Your task to perform on an android device: install app "Google Translate" Image 0: 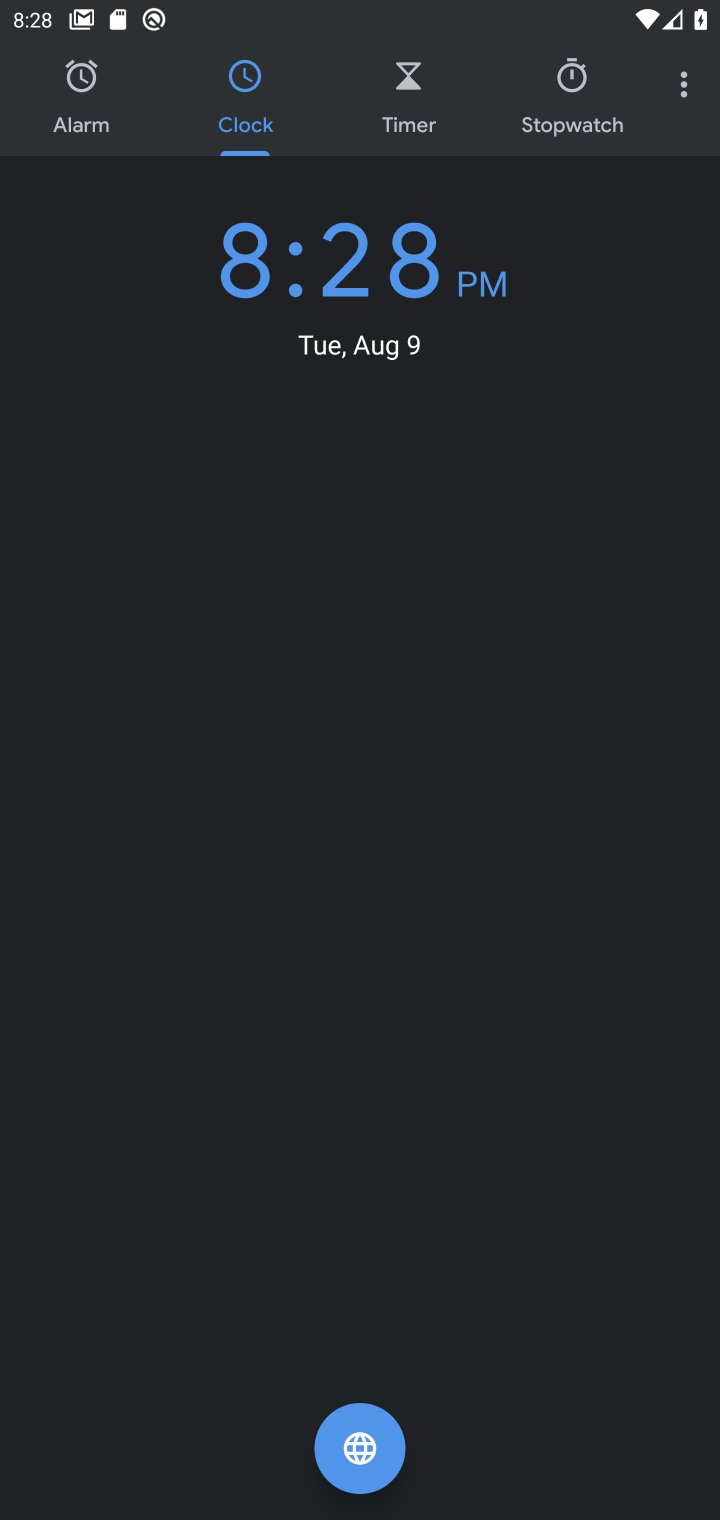
Step 0: press home button
Your task to perform on an android device: install app "Google Translate" Image 1: 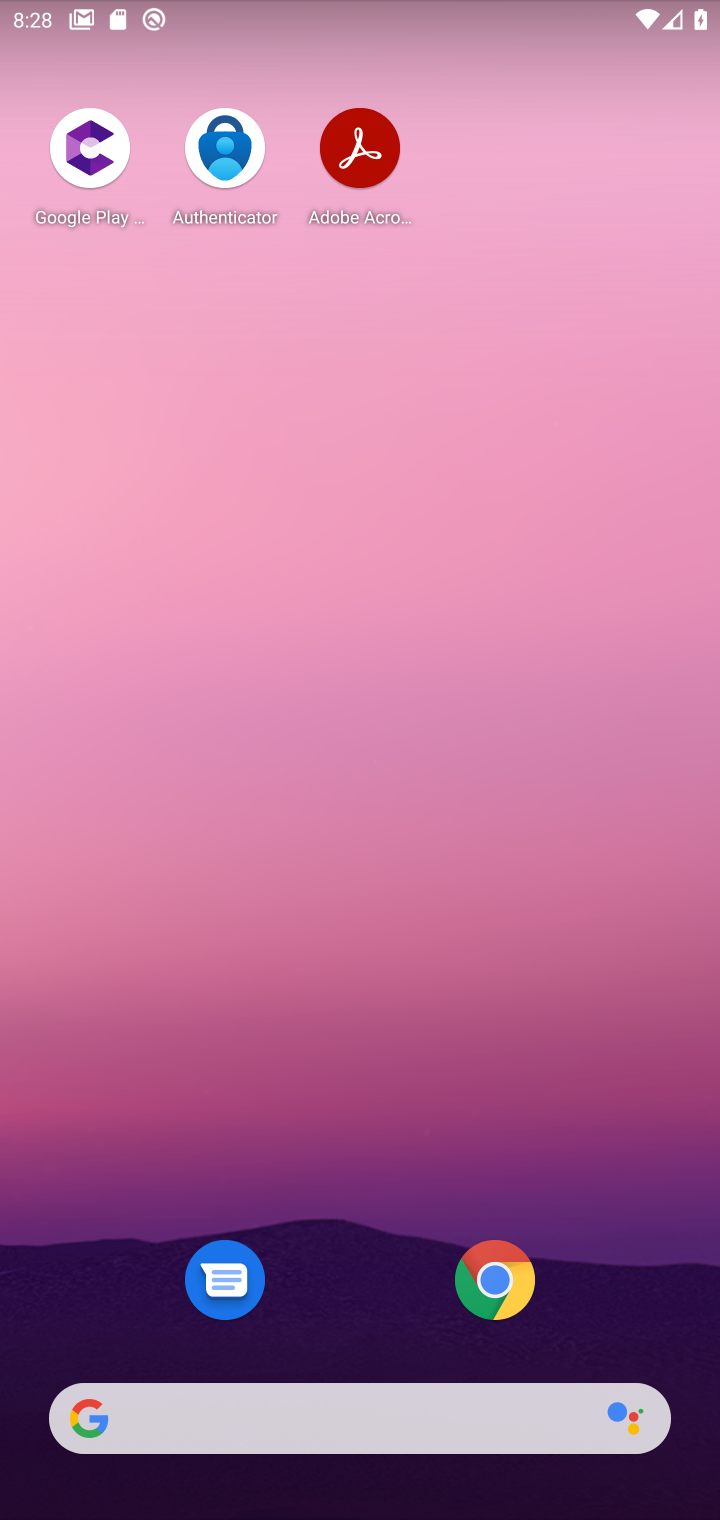
Step 1: drag from (384, 1401) to (308, 291)
Your task to perform on an android device: install app "Google Translate" Image 2: 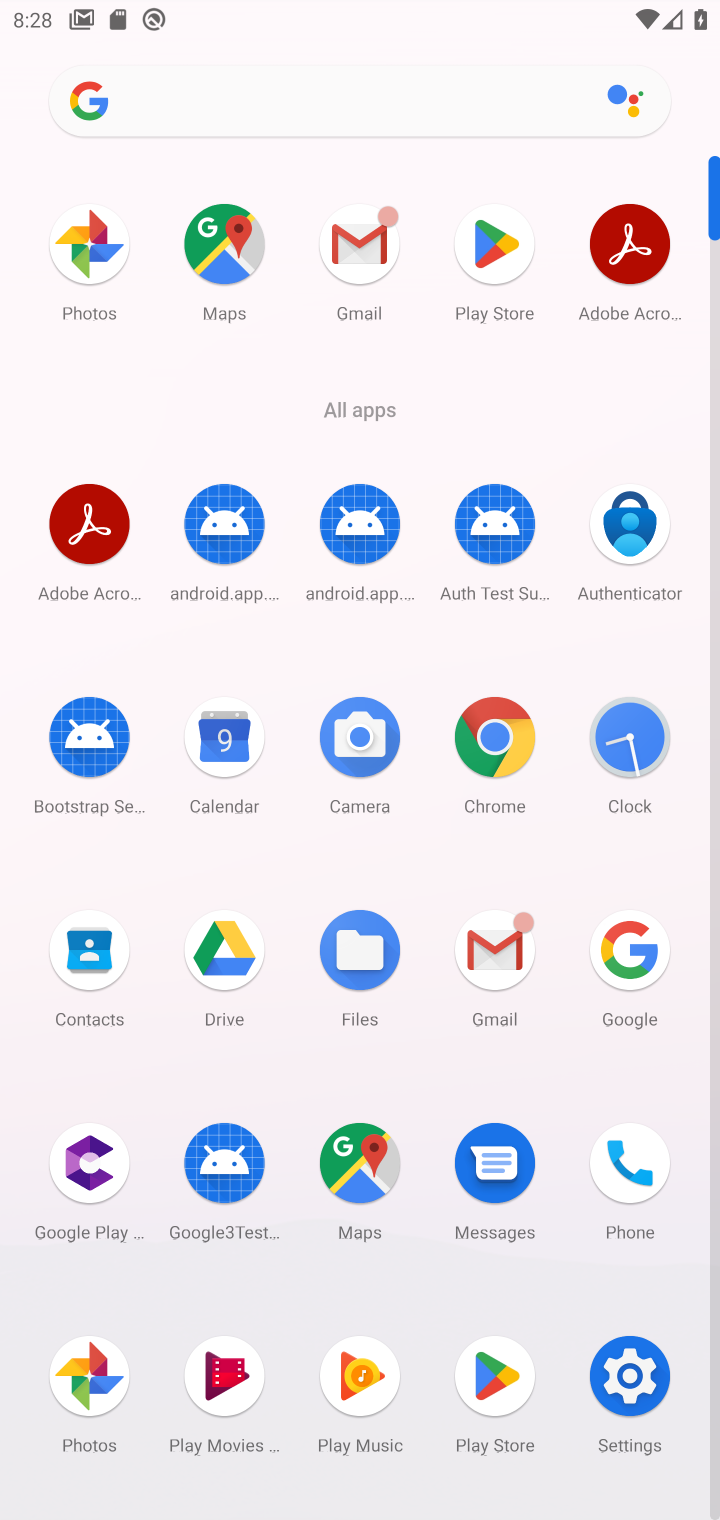
Step 2: click (503, 1382)
Your task to perform on an android device: install app "Google Translate" Image 3: 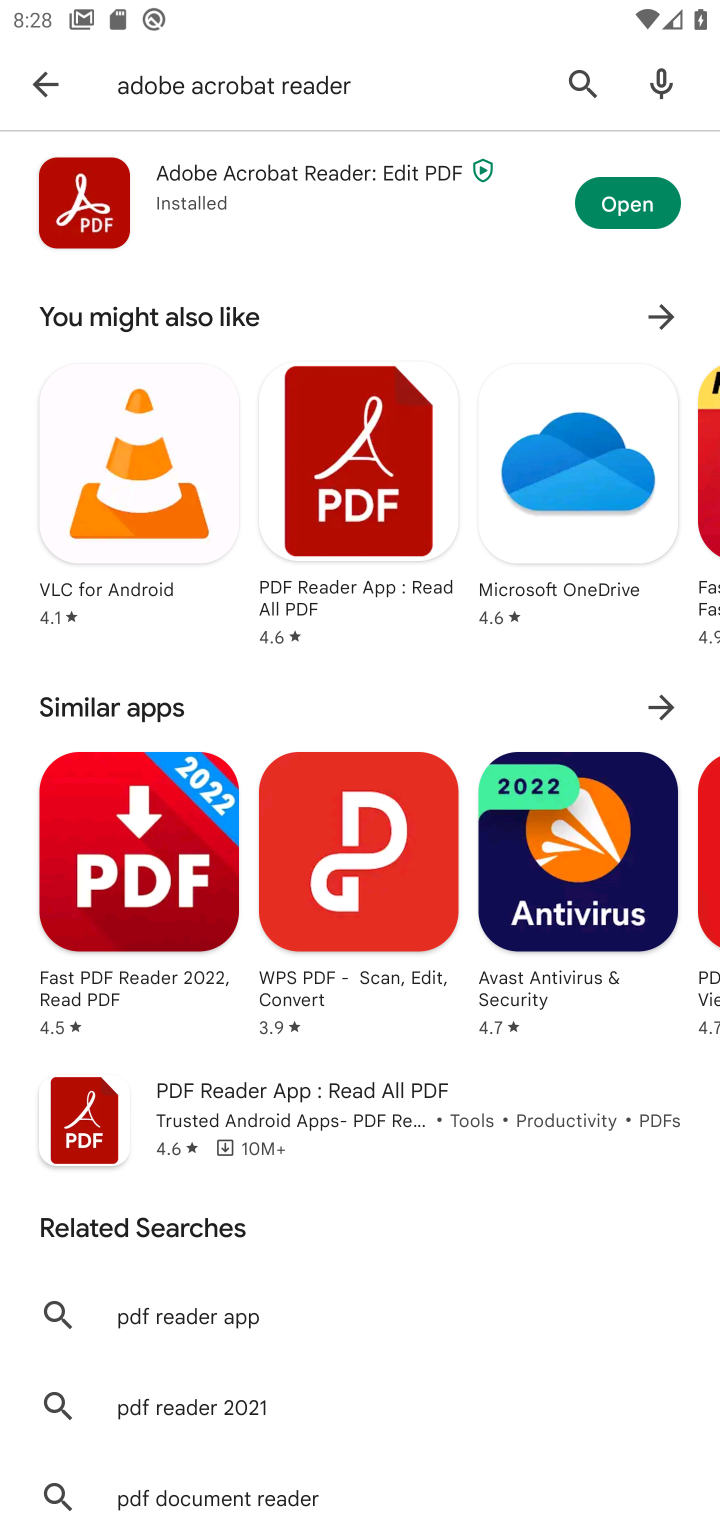
Step 3: click (570, 79)
Your task to perform on an android device: install app "Google Translate" Image 4: 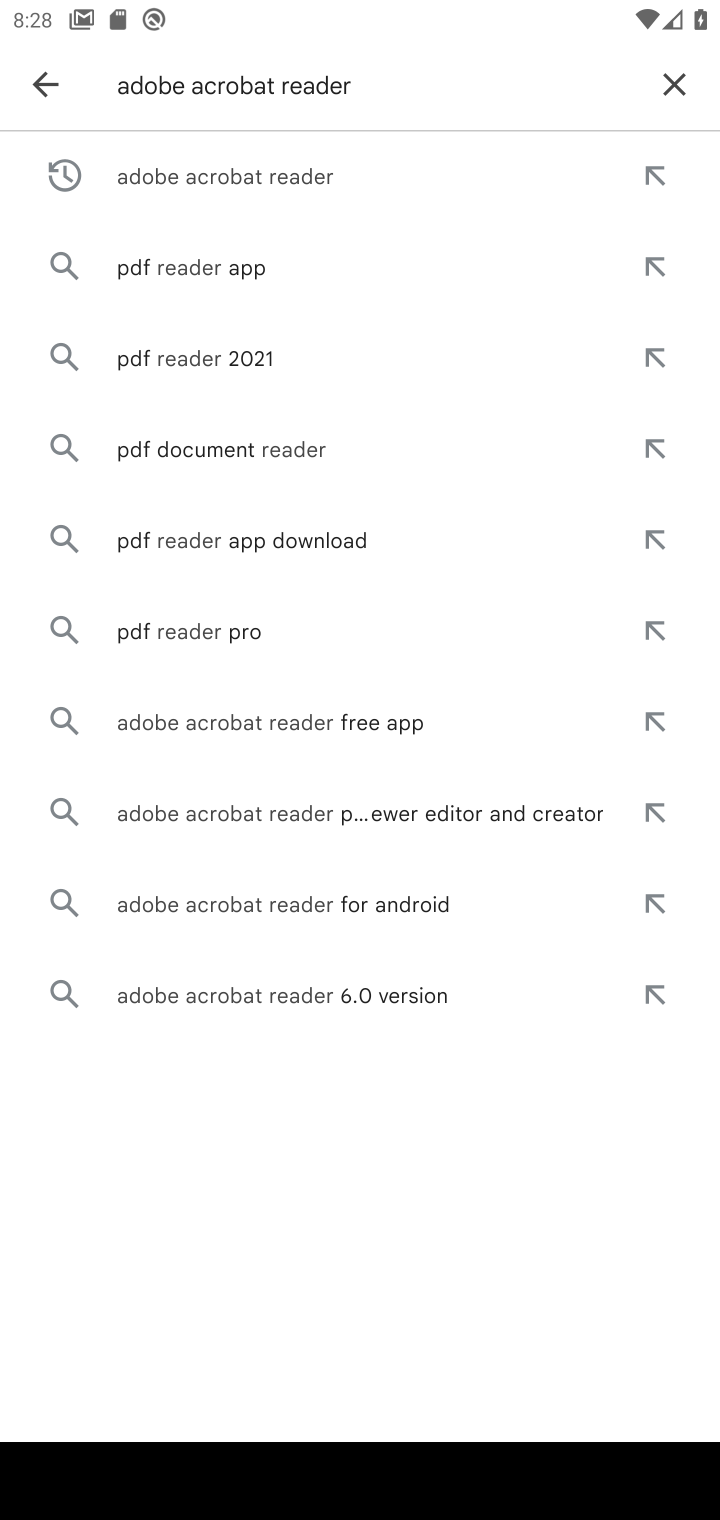
Step 4: click (674, 81)
Your task to perform on an android device: install app "Google Translate" Image 5: 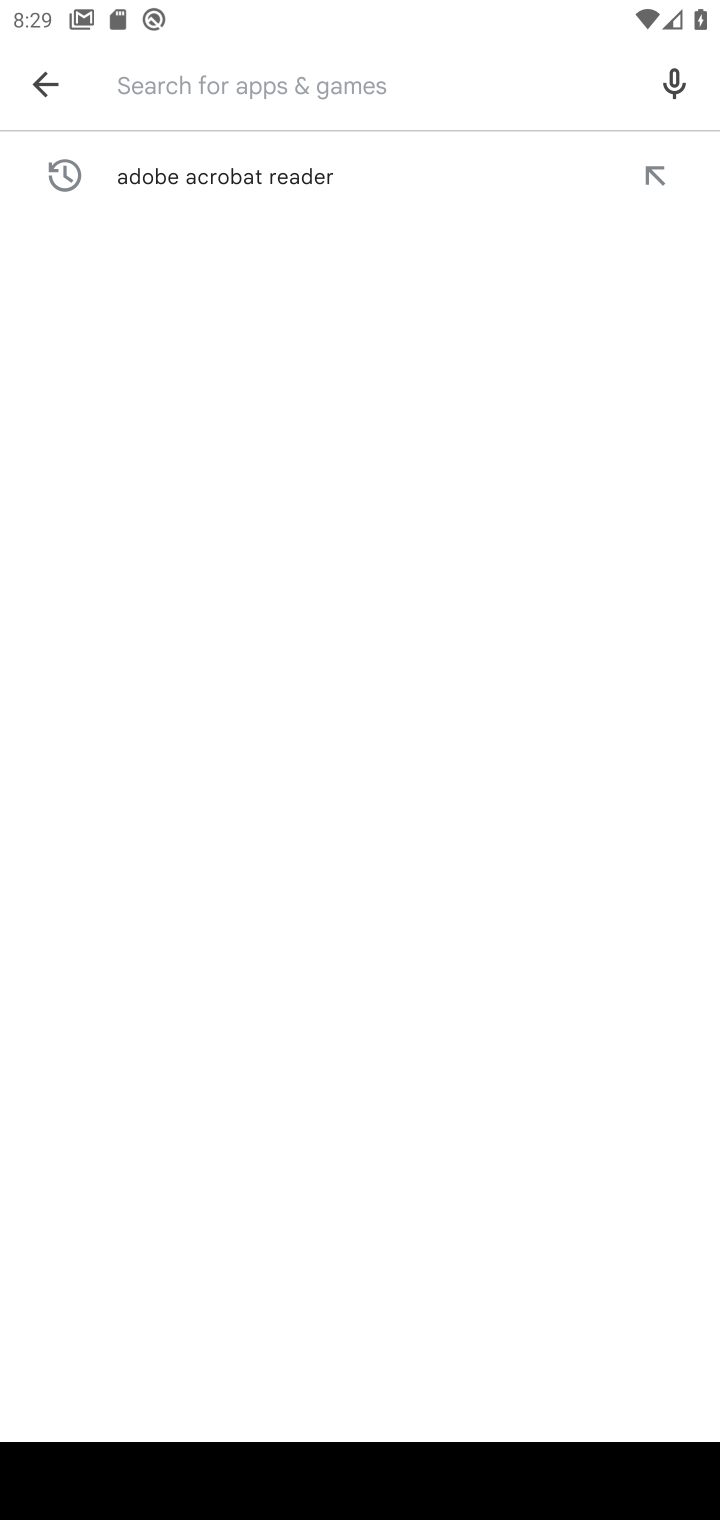
Step 5: type "google translate"
Your task to perform on an android device: install app "Google Translate" Image 6: 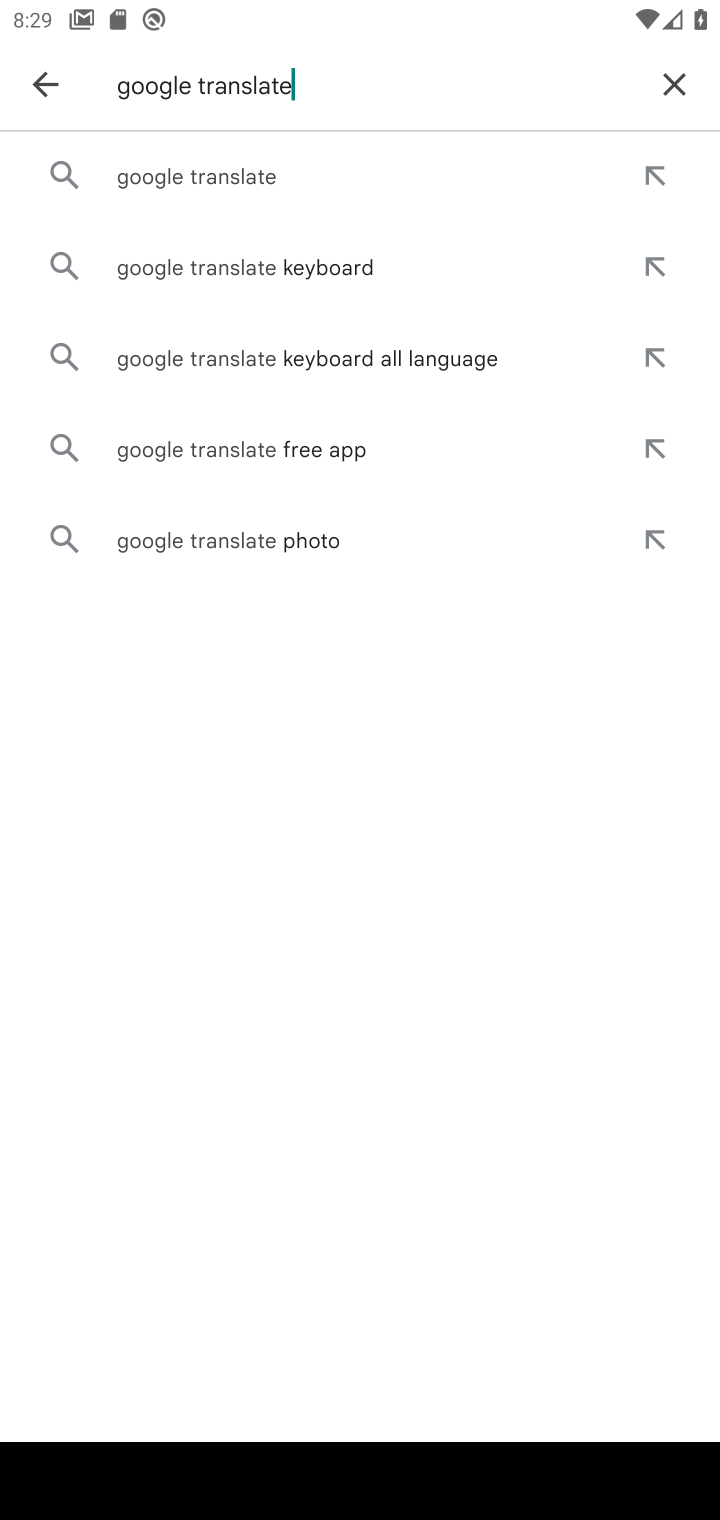
Step 6: click (199, 177)
Your task to perform on an android device: install app "Google Translate" Image 7: 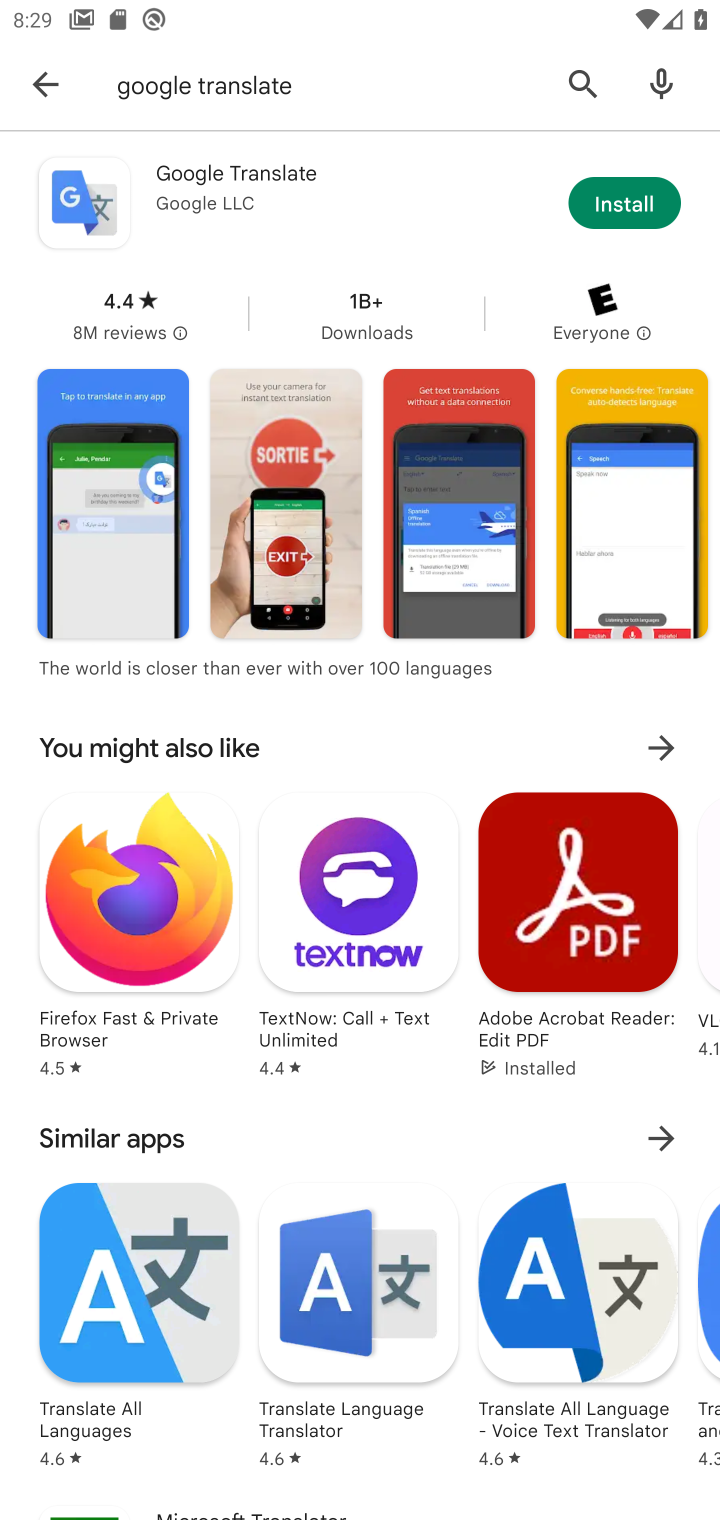
Step 7: click (650, 214)
Your task to perform on an android device: install app "Google Translate" Image 8: 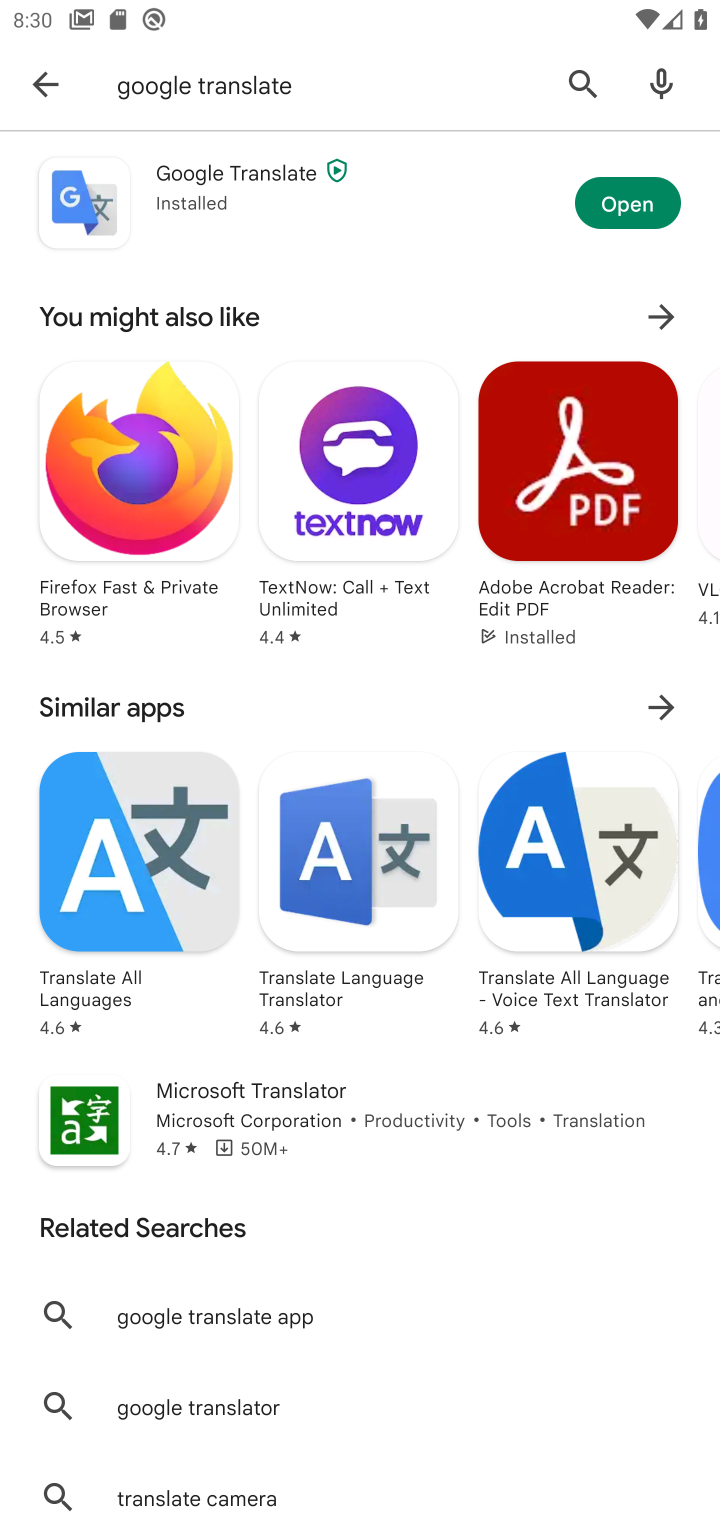
Step 8: click (642, 213)
Your task to perform on an android device: install app "Google Translate" Image 9: 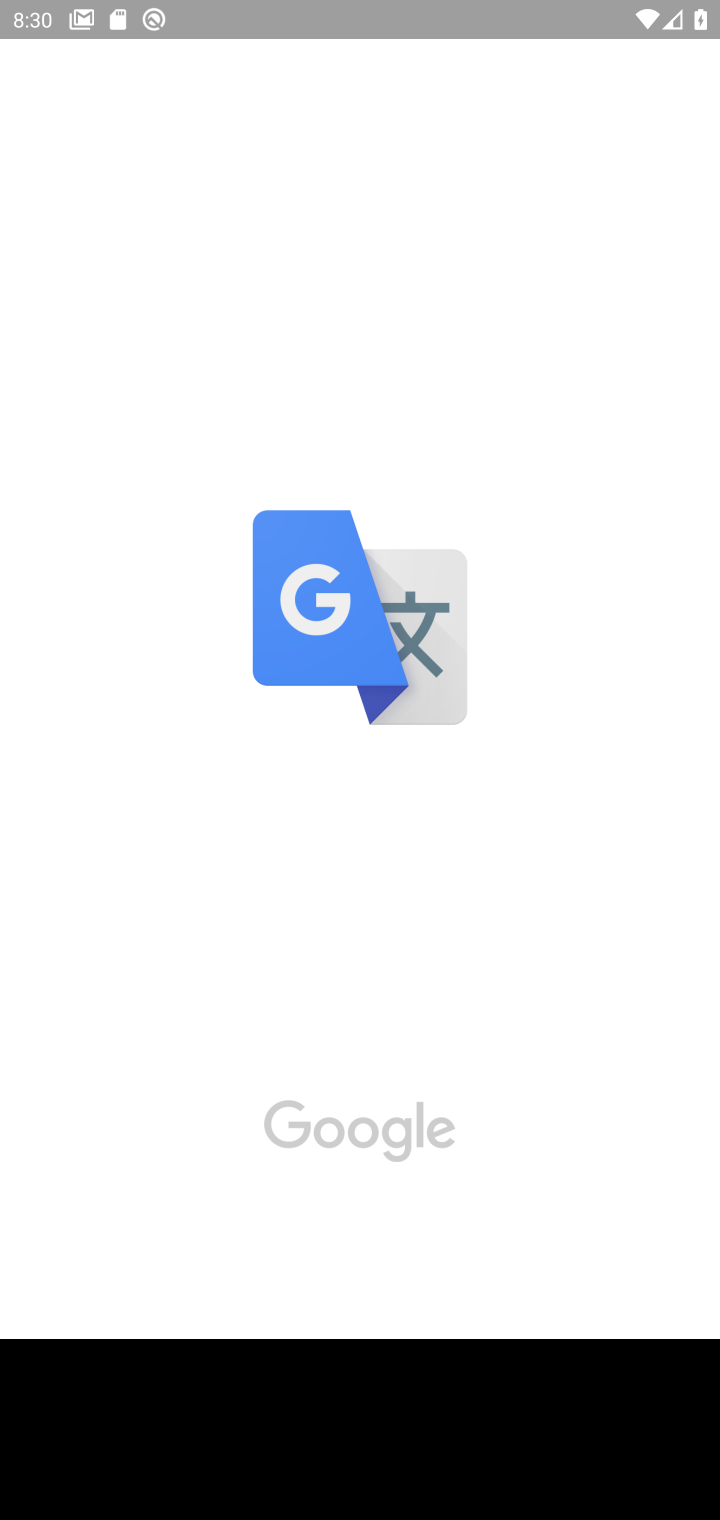
Step 9: task complete